Your task to perform on an android device: change alarm snooze length Image 0: 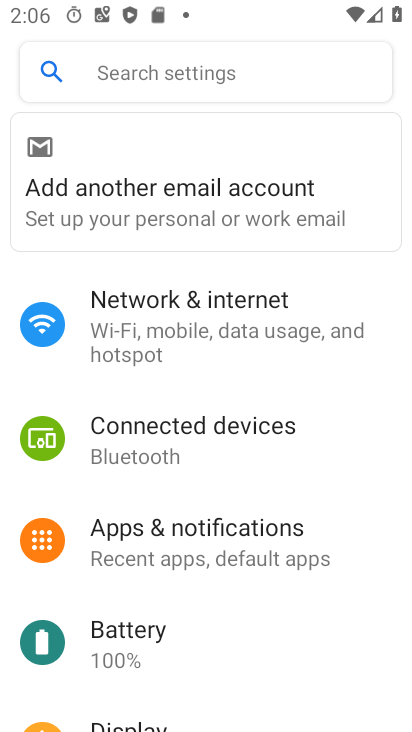
Step 0: press home button
Your task to perform on an android device: change alarm snooze length Image 1: 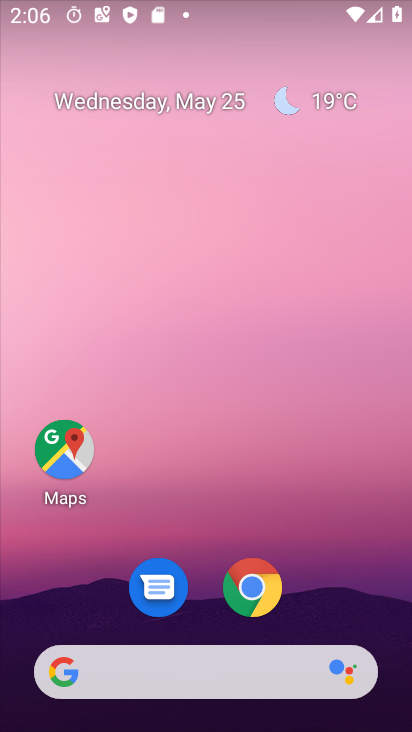
Step 1: drag from (319, 588) to (308, 103)
Your task to perform on an android device: change alarm snooze length Image 2: 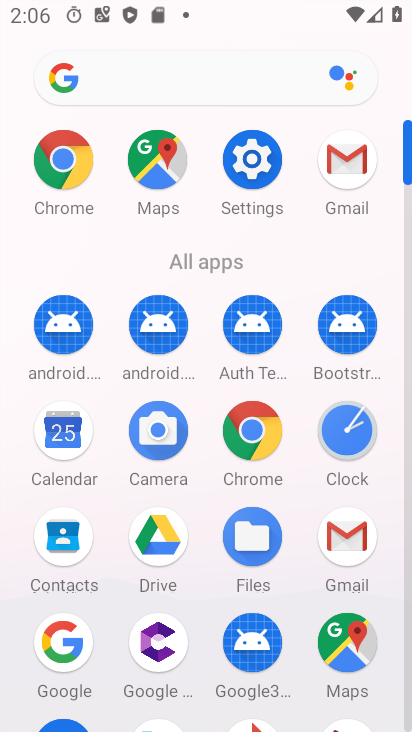
Step 2: click (254, 156)
Your task to perform on an android device: change alarm snooze length Image 3: 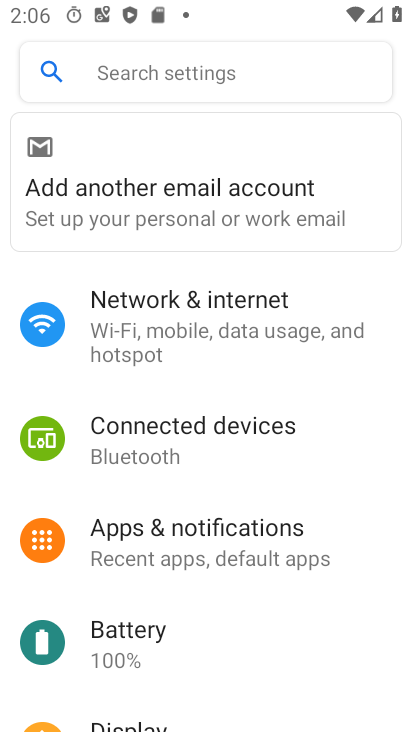
Step 3: press home button
Your task to perform on an android device: change alarm snooze length Image 4: 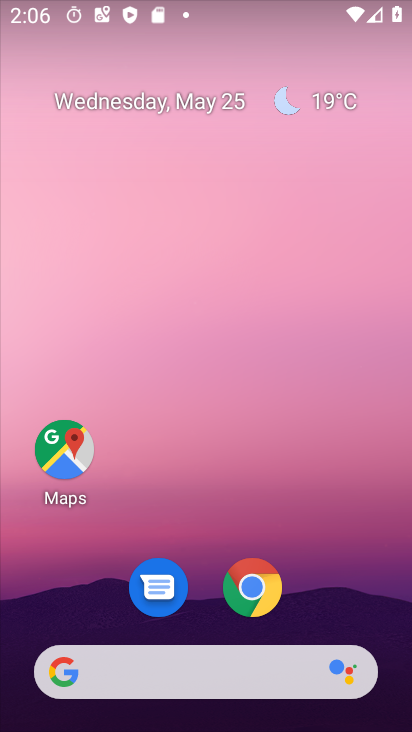
Step 4: drag from (213, 603) to (247, 114)
Your task to perform on an android device: change alarm snooze length Image 5: 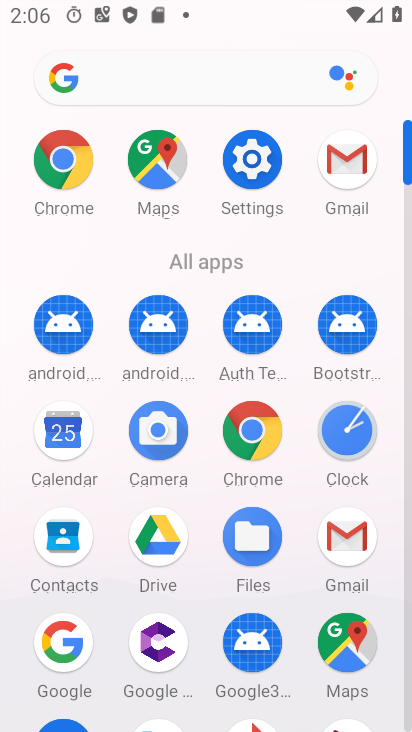
Step 5: click (350, 435)
Your task to perform on an android device: change alarm snooze length Image 6: 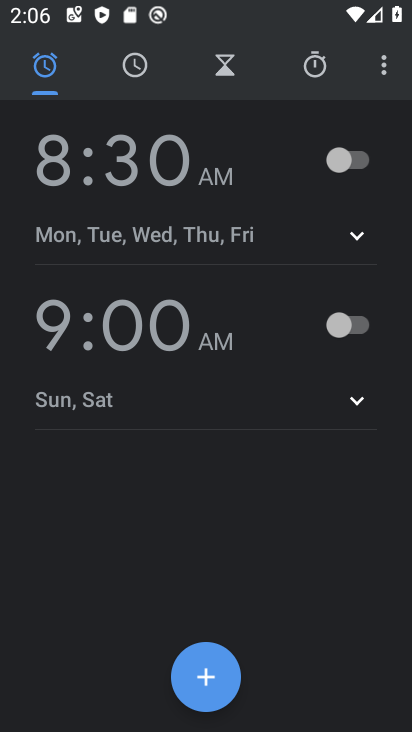
Step 6: click (373, 73)
Your task to perform on an android device: change alarm snooze length Image 7: 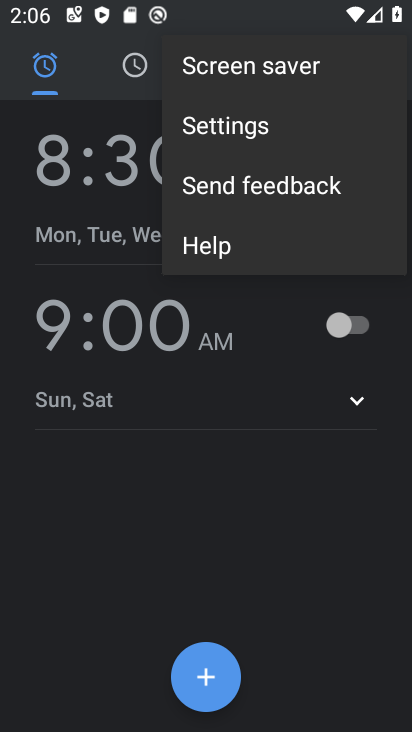
Step 7: click (256, 127)
Your task to perform on an android device: change alarm snooze length Image 8: 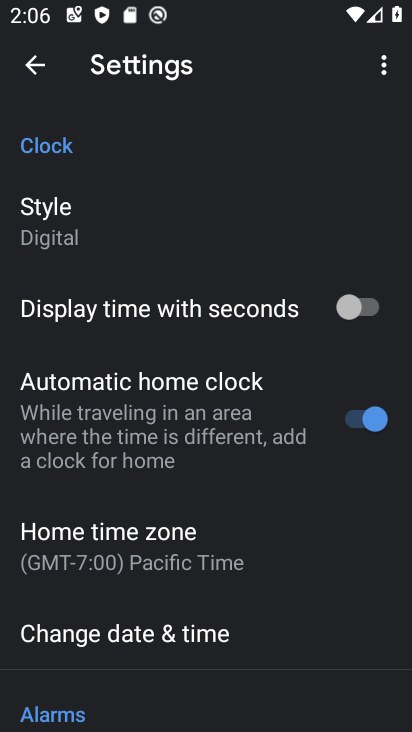
Step 8: drag from (213, 533) to (239, 74)
Your task to perform on an android device: change alarm snooze length Image 9: 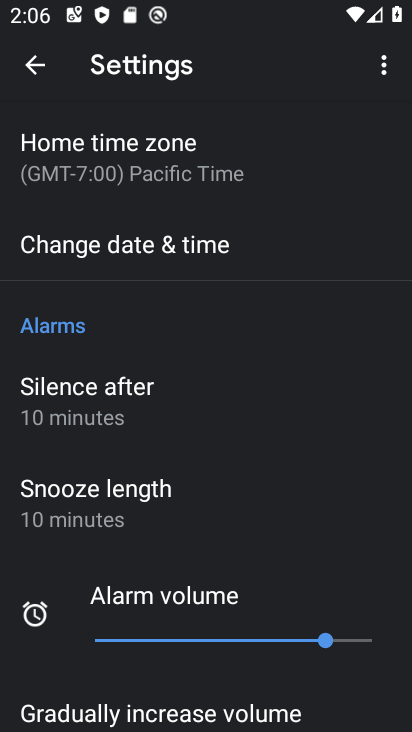
Step 9: click (119, 485)
Your task to perform on an android device: change alarm snooze length Image 10: 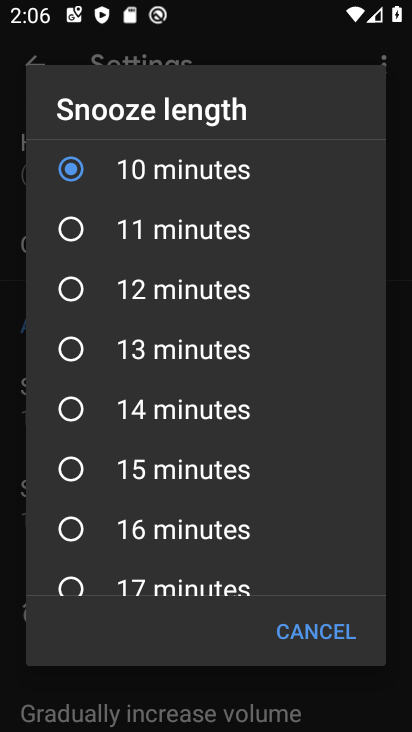
Step 10: click (73, 417)
Your task to perform on an android device: change alarm snooze length Image 11: 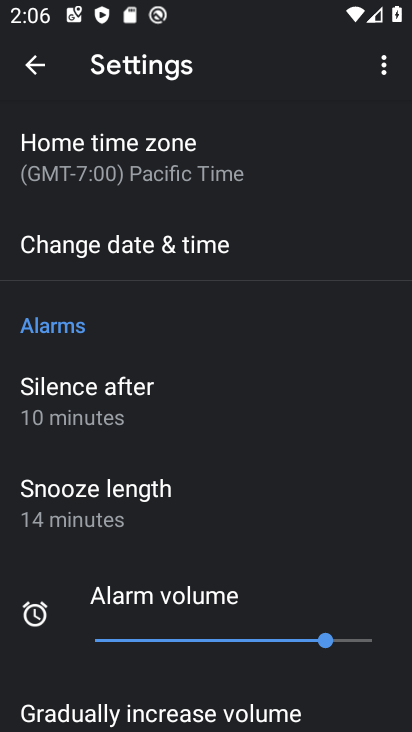
Step 11: task complete